Your task to perform on an android device: Open the map Image 0: 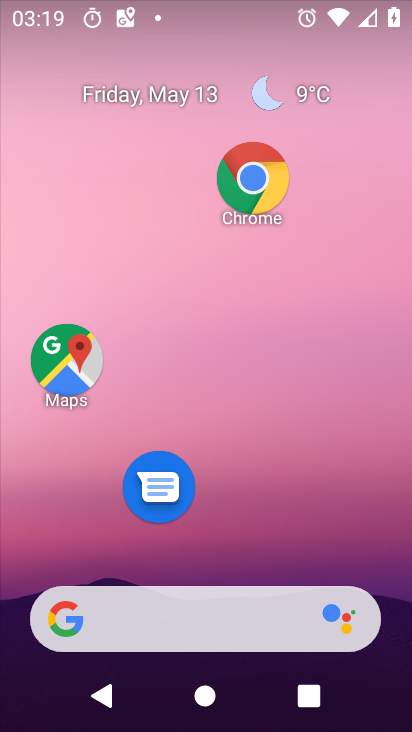
Step 0: drag from (277, 503) to (293, 140)
Your task to perform on an android device: Open the map Image 1: 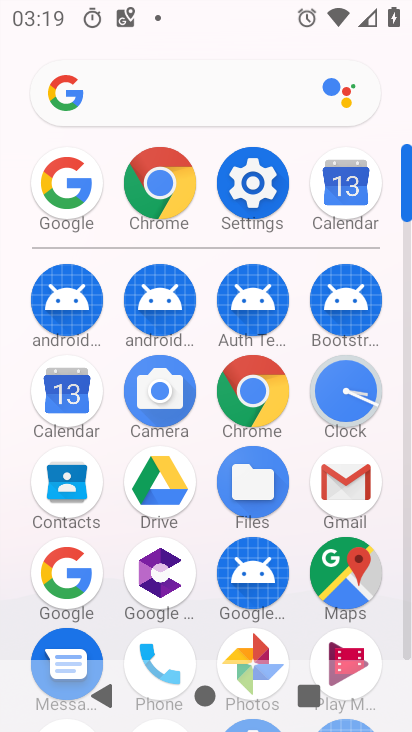
Step 1: click (353, 574)
Your task to perform on an android device: Open the map Image 2: 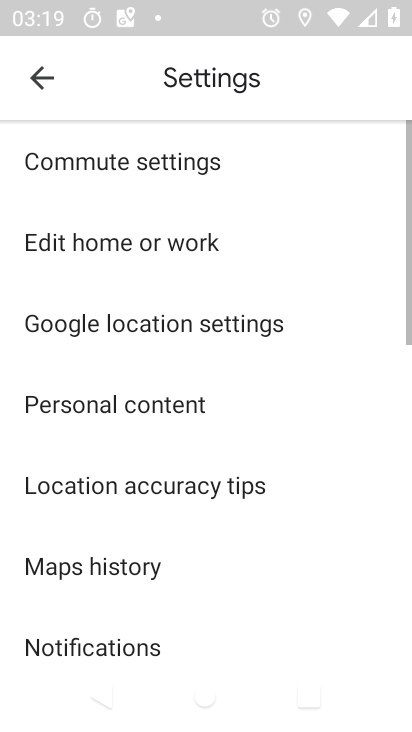
Step 2: task complete